Your task to perform on an android device: Turn off the flashlight Image 0: 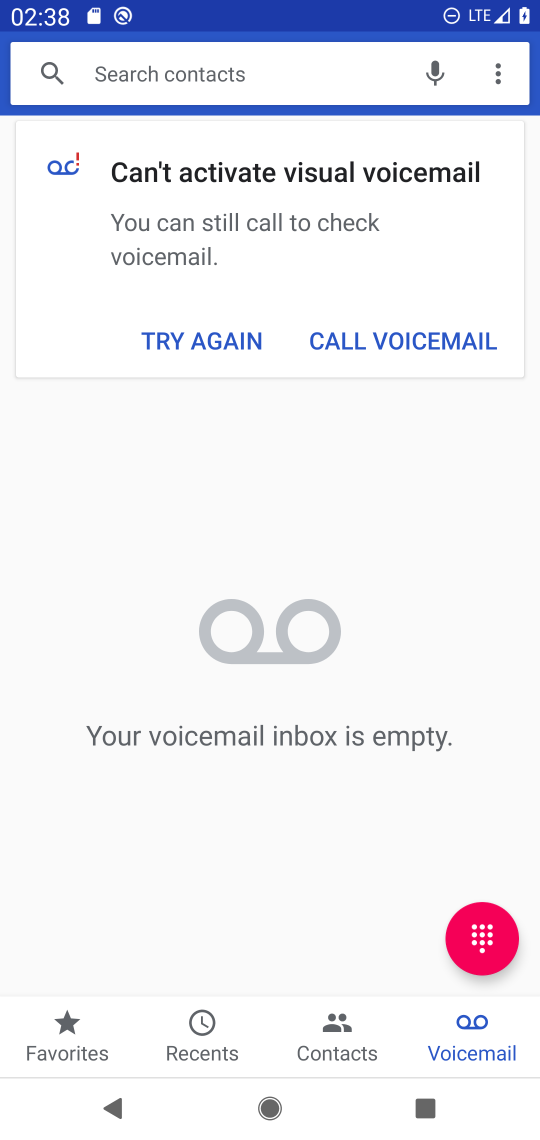
Step 0: press home button
Your task to perform on an android device: Turn off the flashlight Image 1: 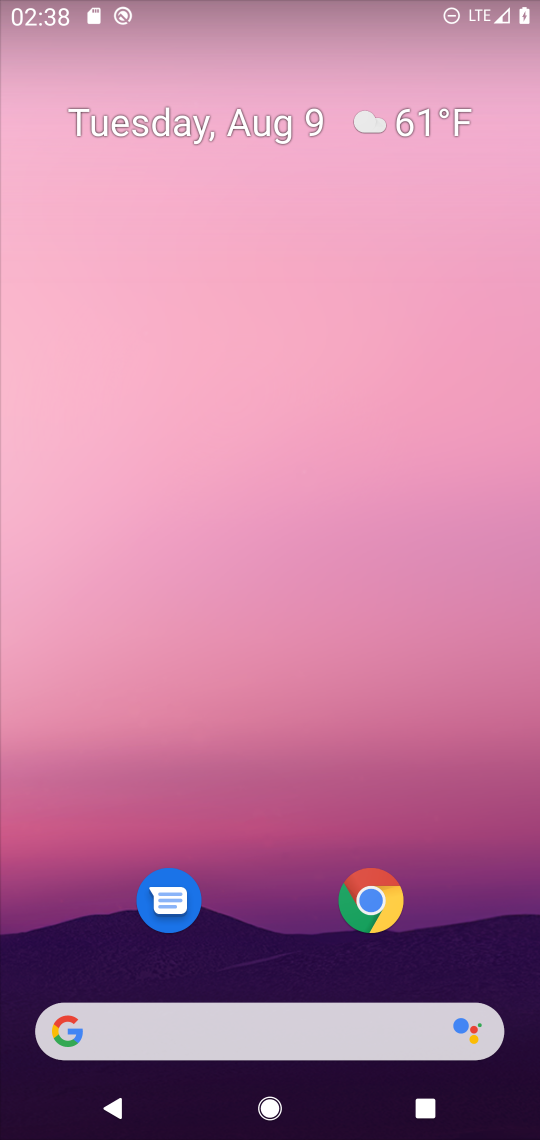
Step 1: drag from (311, 8) to (294, 642)
Your task to perform on an android device: Turn off the flashlight Image 2: 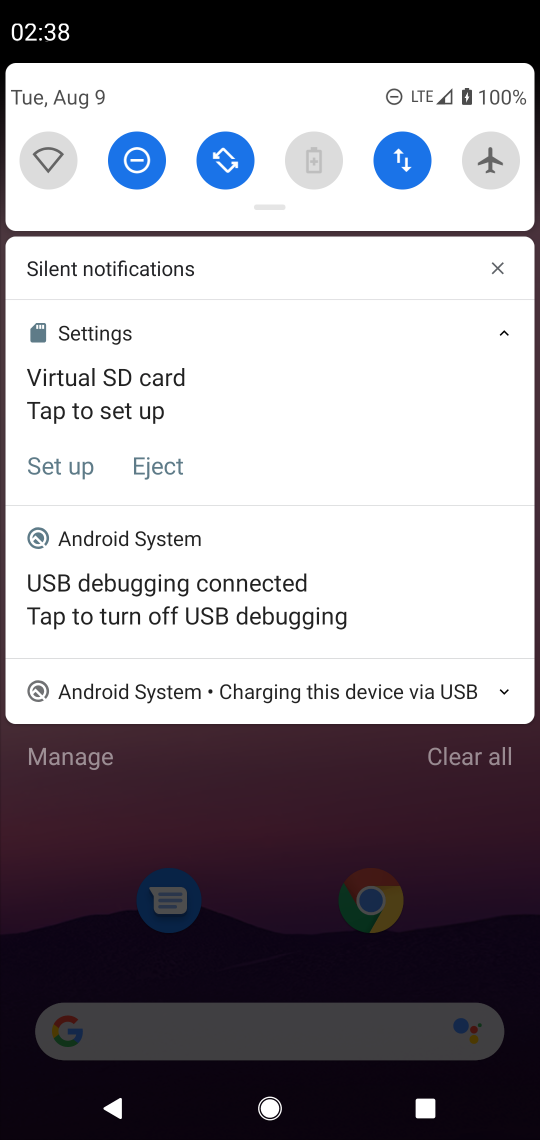
Step 2: drag from (264, 100) to (245, 710)
Your task to perform on an android device: Turn off the flashlight Image 3: 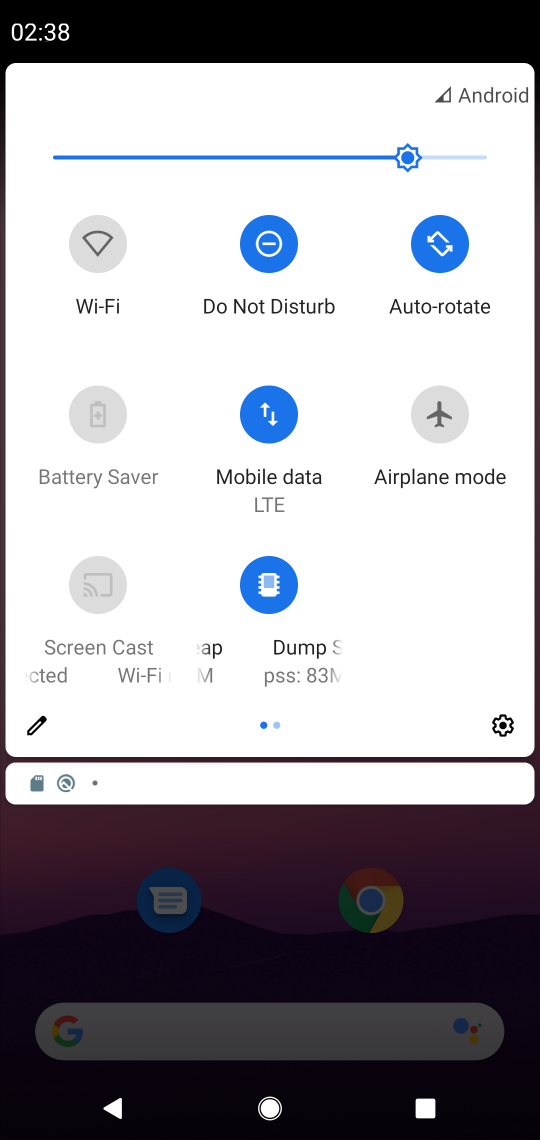
Step 3: click (50, 724)
Your task to perform on an android device: Turn off the flashlight Image 4: 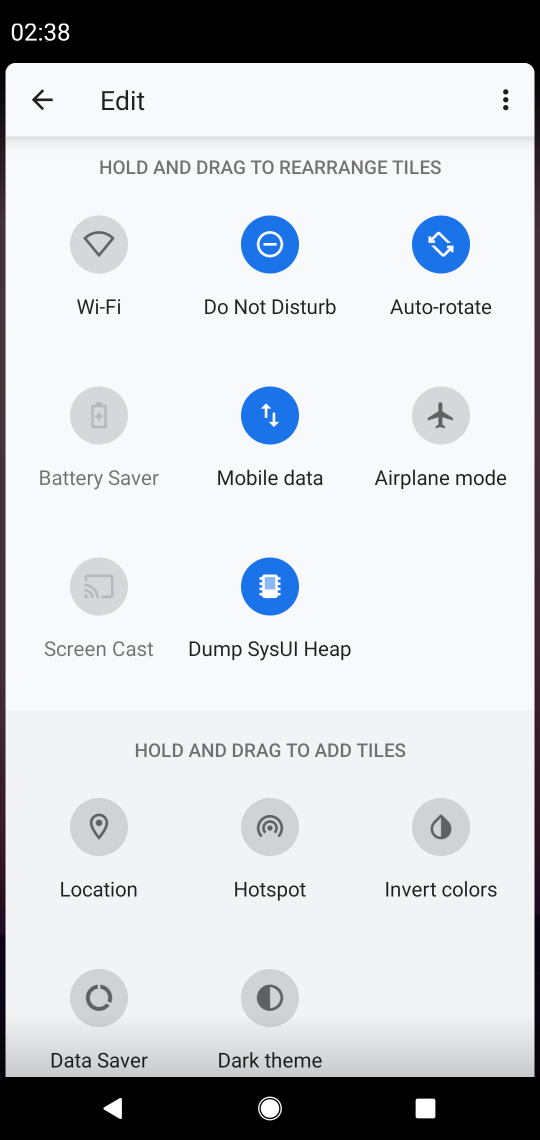
Step 4: task complete